Your task to perform on an android device: What's the weather going to be this weekend? Image 0: 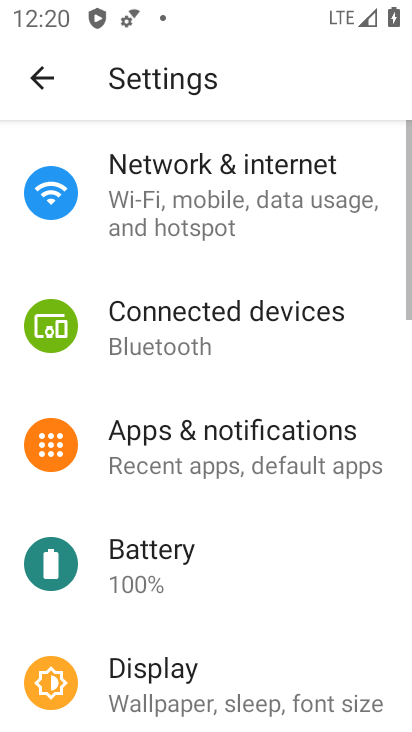
Step 0: press back button
Your task to perform on an android device: What's the weather going to be this weekend? Image 1: 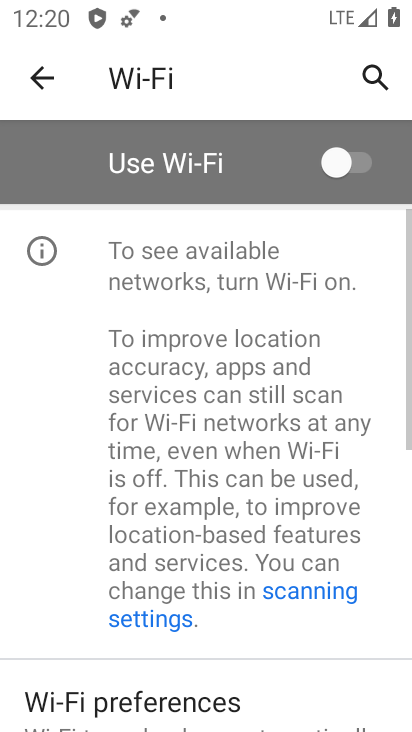
Step 1: press back button
Your task to perform on an android device: What's the weather going to be this weekend? Image 2: 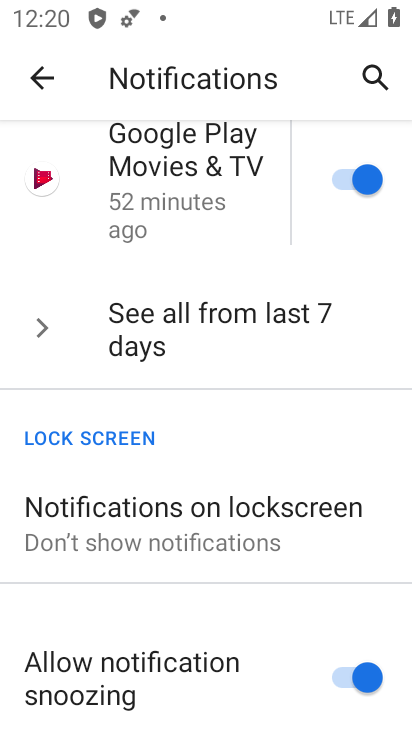
Step 2: press home button
Your task to perform on an android device: What's the weather going to be this weekend? Image 3: 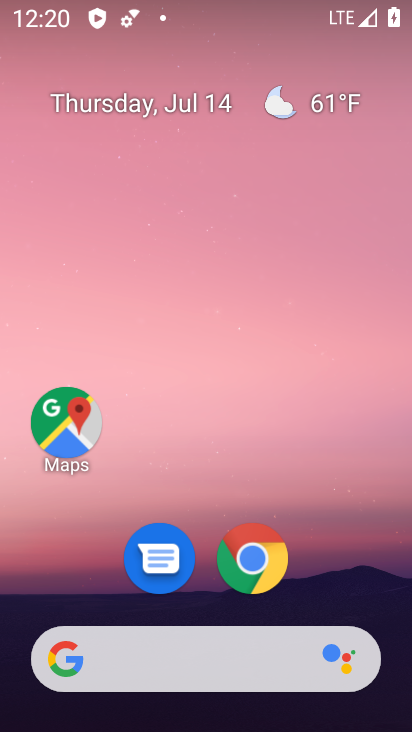
Step 3: click (278, 107)
Your task to perform on an android device: What's the weather going to be this weekend? Image 4: 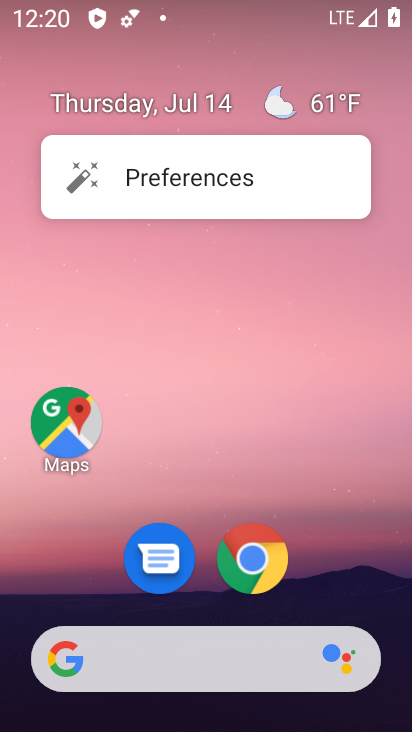
Step 4: click (275, 94)
Your task to perform on an android device: What's the weather going to be this weekend? Image 5: 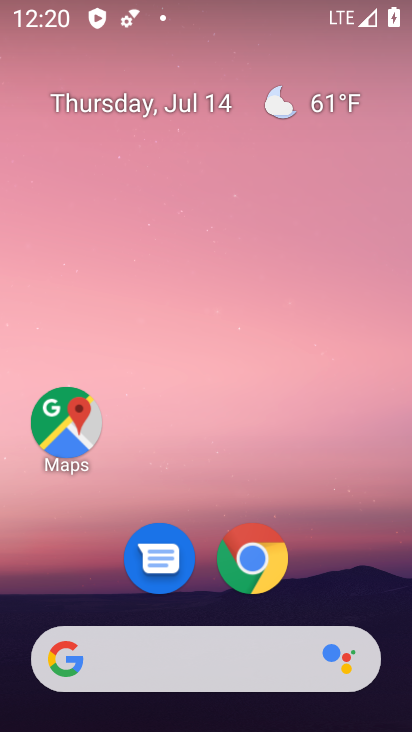
Step 5: click (276, 112)
Your task to perform on an android device: What's the weather going to be this weekend? Image 6: 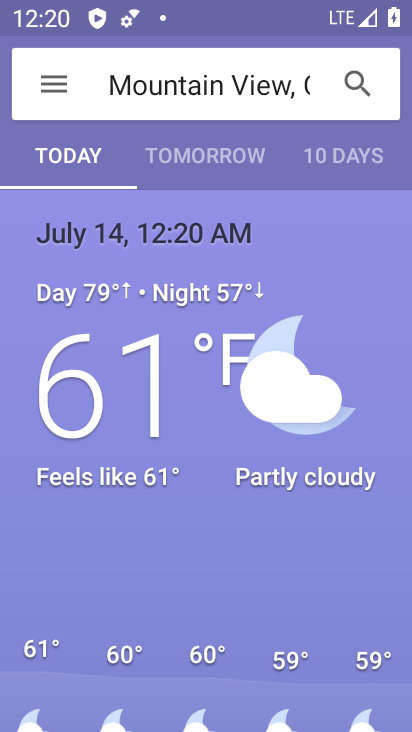
Step 6: click (321, 156)
Your task to perform on an android device: What's the weather going to be this weekend? Image 7: 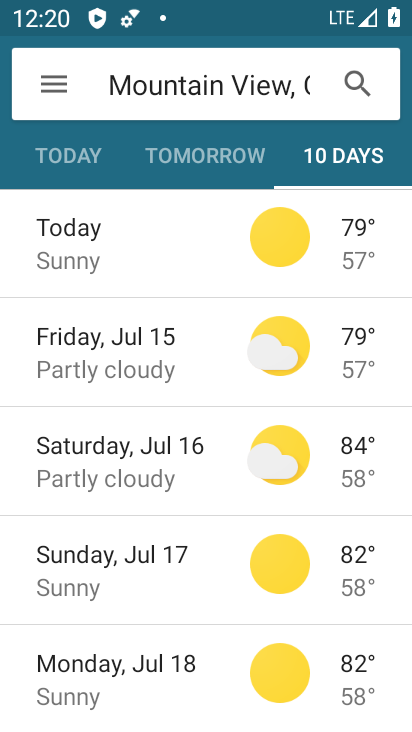
Step 7: task complete